Your task to perform on an android device: What's the weather going to be tomorrow? Image 0: 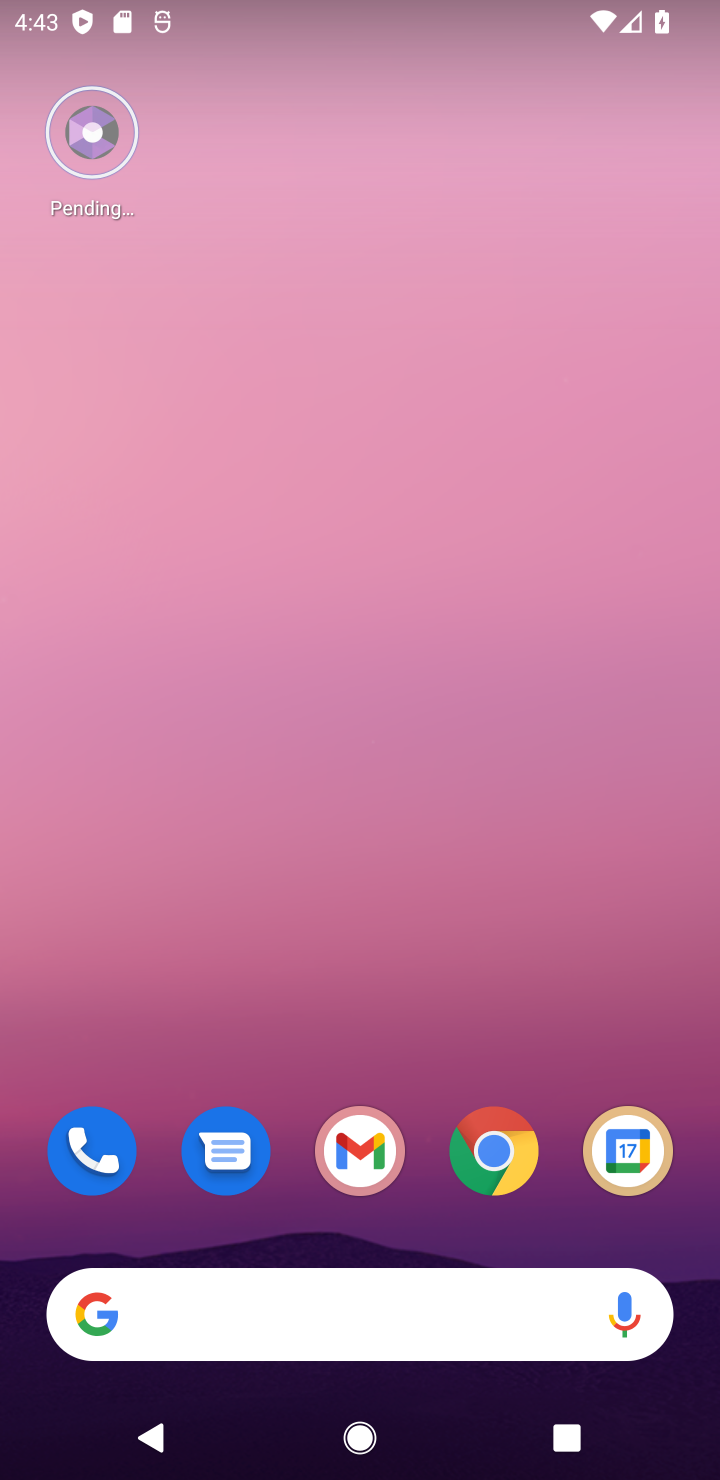
Step 0: drag from (416, 1241) to (375, 140)
Your task to perform on an android device: What's the weather going to be tomorrow? Image 1: 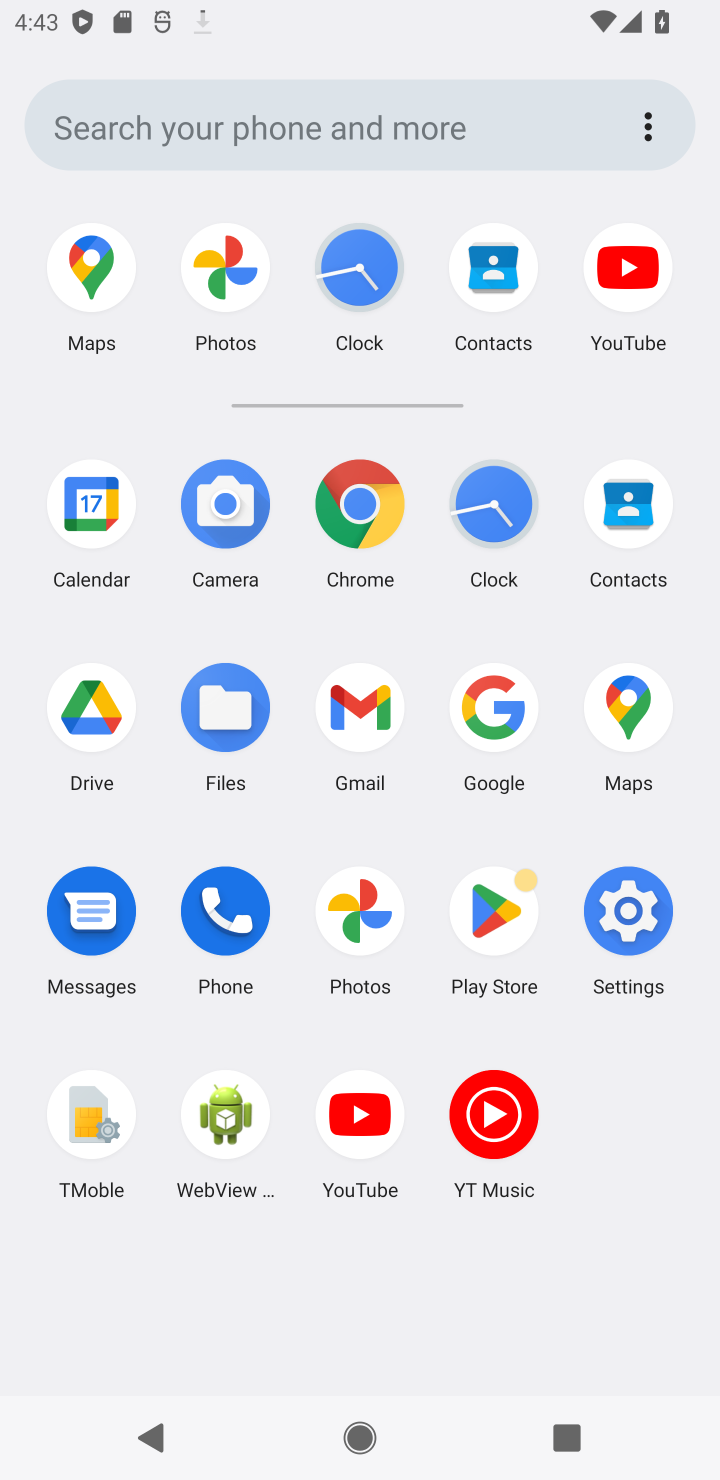
Step 1: click (366, 156)
Your task to perform on an android device: What's the weather going to be tomorrow? Image 2: 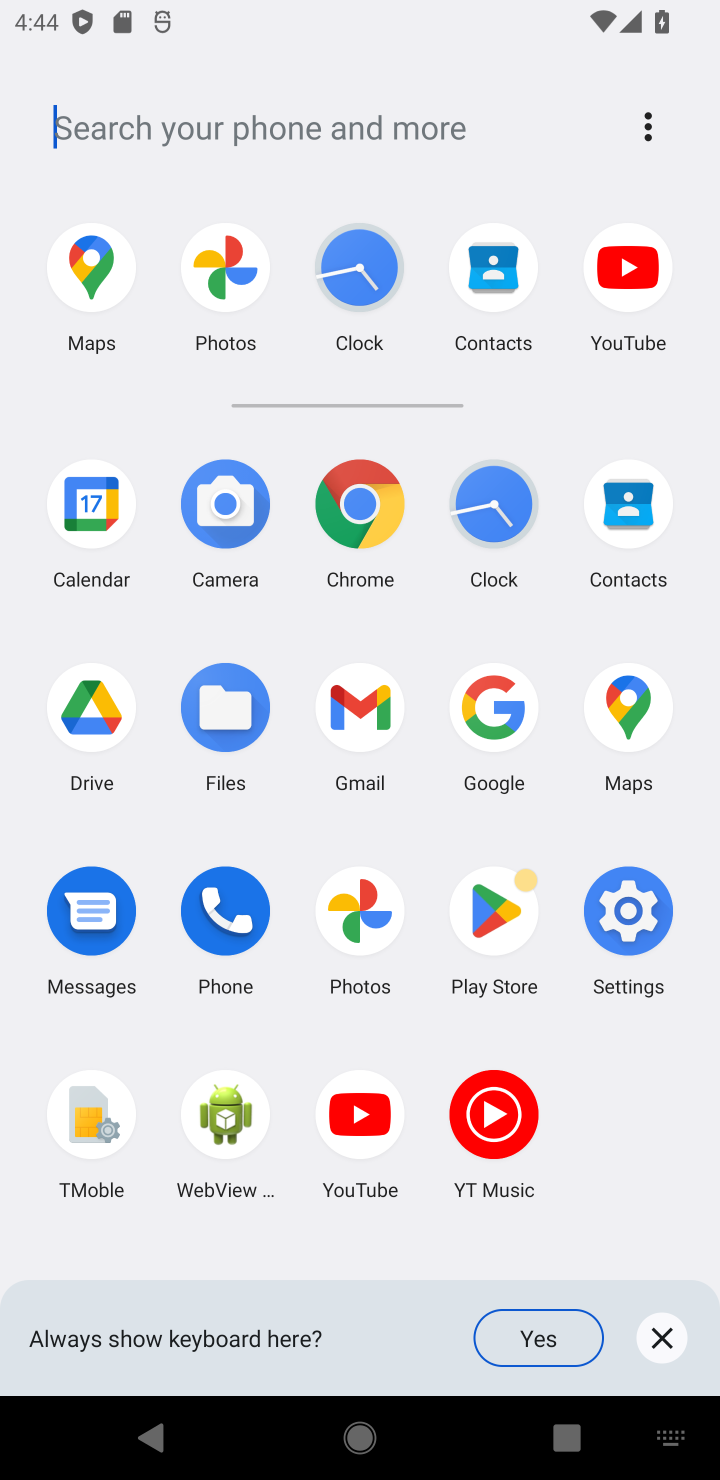
Step 2: type "weather"
Your task to perform on an android device: What's the weather going to be tomorrow? Image 3: 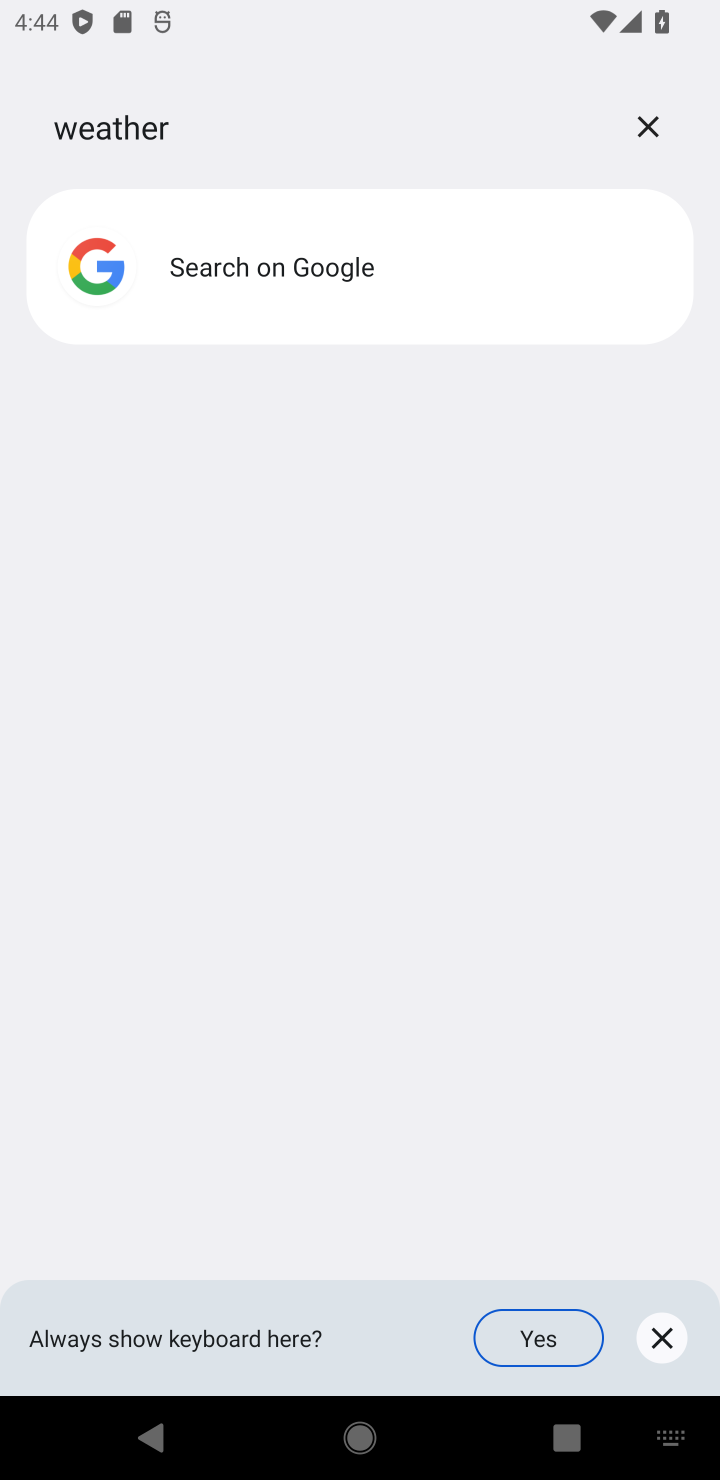
Step 3: click (309, 321)
Your task to perform on an android device: What's the weather going to be tomorrow? Image 4: 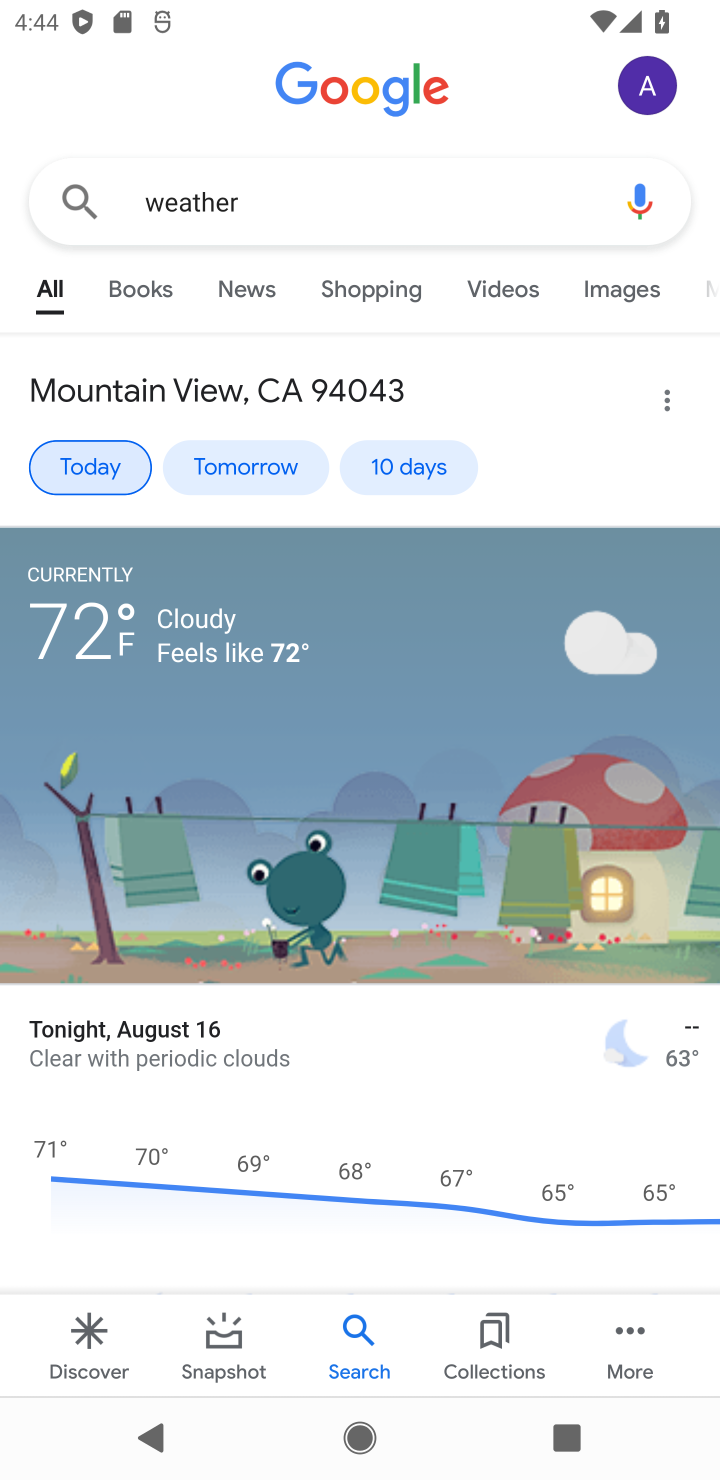
Step 4: click (242, 464)
Your task to perform on an android device: What's the weather going to be tomorrow? Image 5: 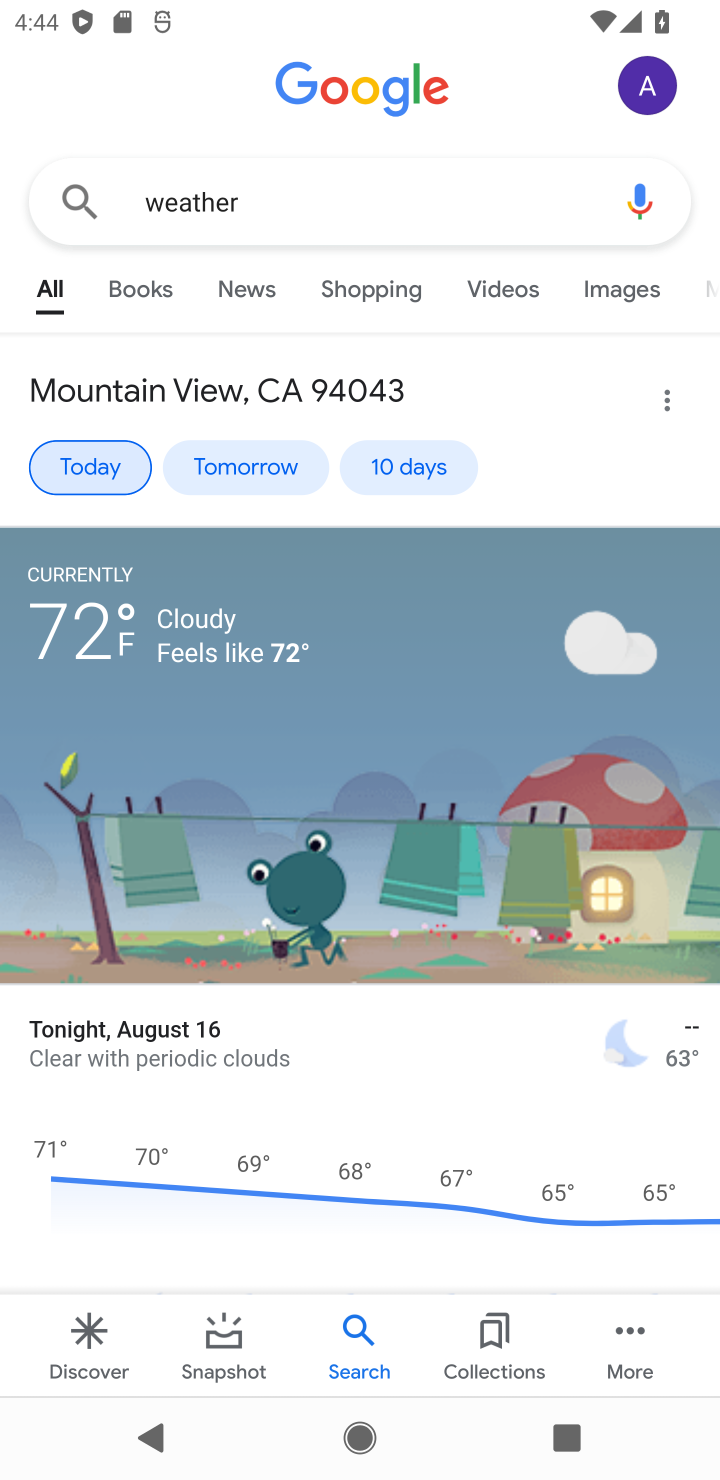
Step 5: click (261, 464)
Your task to perform on an android device: What's the weather going to be tomorrow? Image 6: 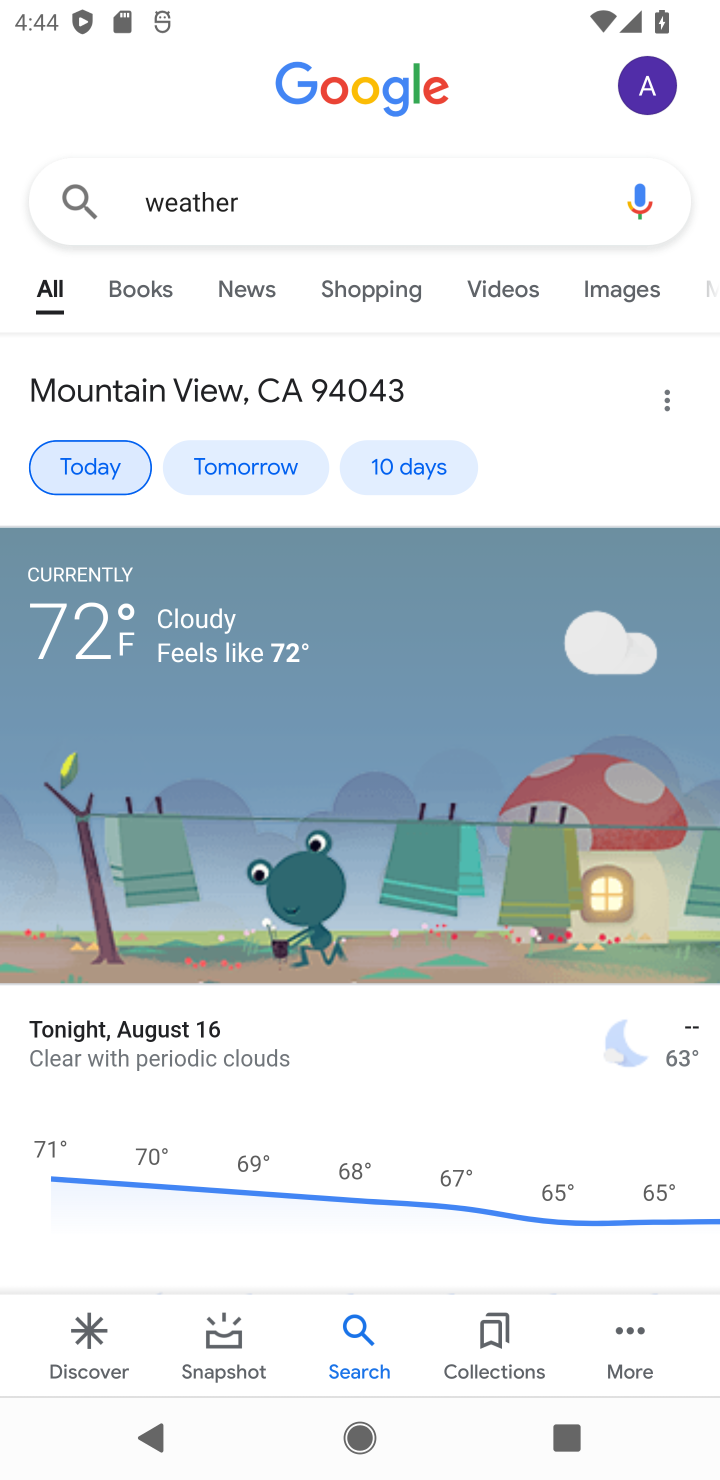
Step 6: click (261, 464)
Your task to perform on an android device: What's the weather going to be tomorrow? Image 7: 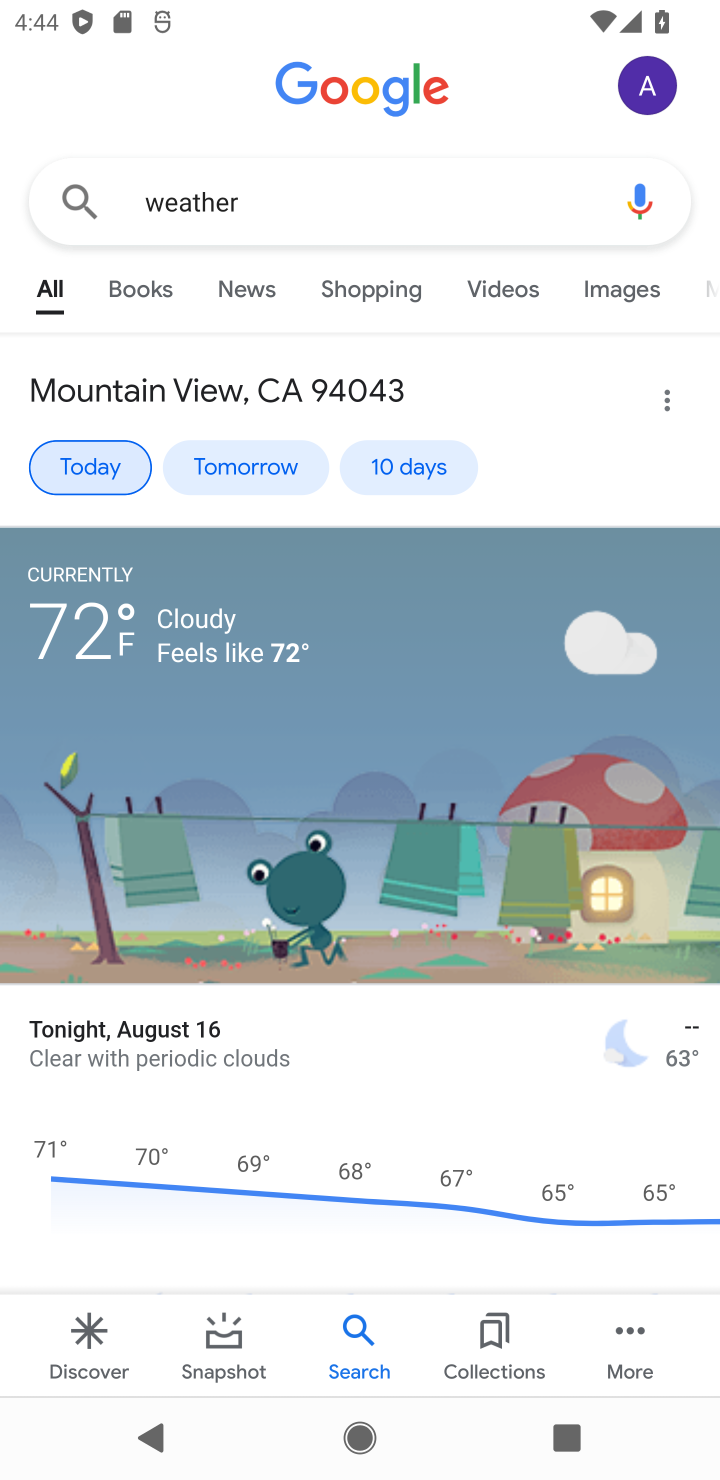
Step 7: task complete